Your task to perform on an android device: open wifi settings Image 0: 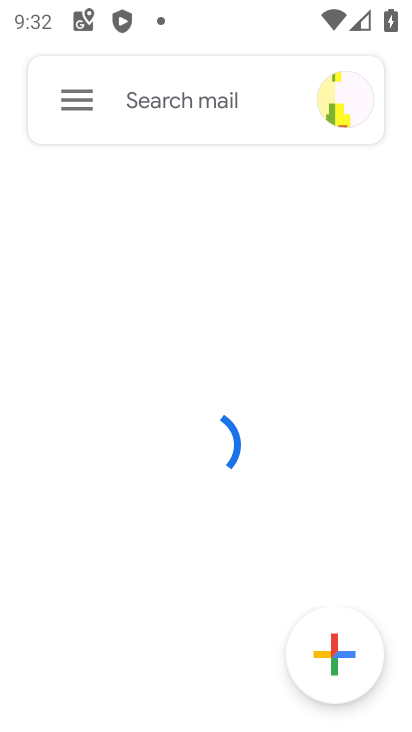
Step 0: press home button
Your task to perform on an android device: open wifi settings Image 1: 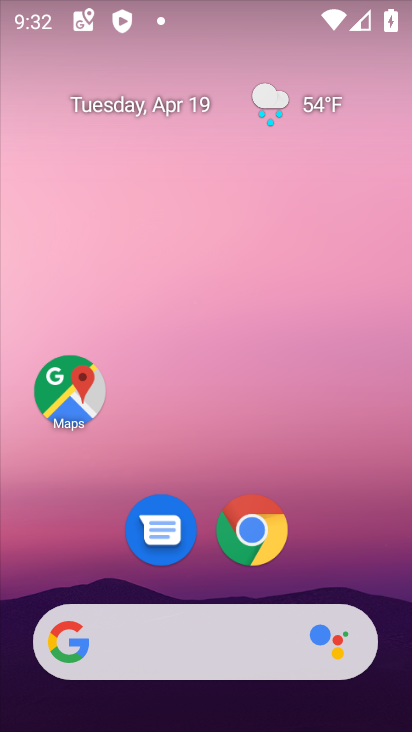
Step 1: drag from (214, 479) to (230, 98)
Your task to perform on an android device: open wifi settings Image 2: 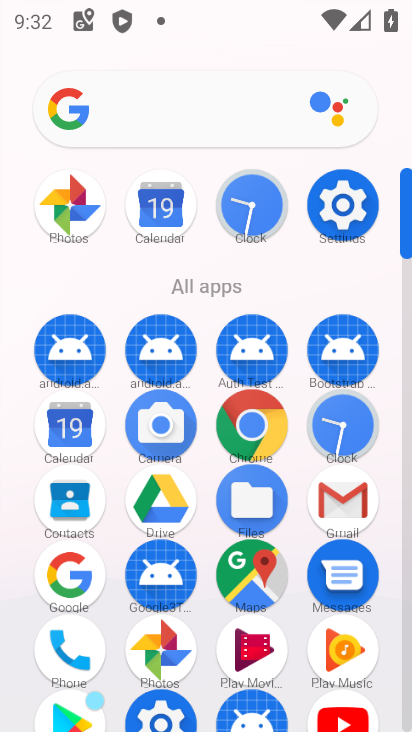
Step 2: click (341, 206)
Your task to perform on an android device: open wifi settings Image 3: 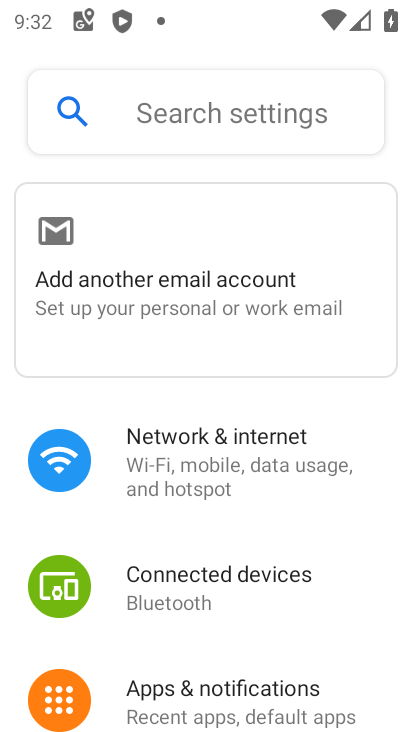
Step 3: click (198, 477)
Your task to perform on an android device: open wifi settings Image 4: 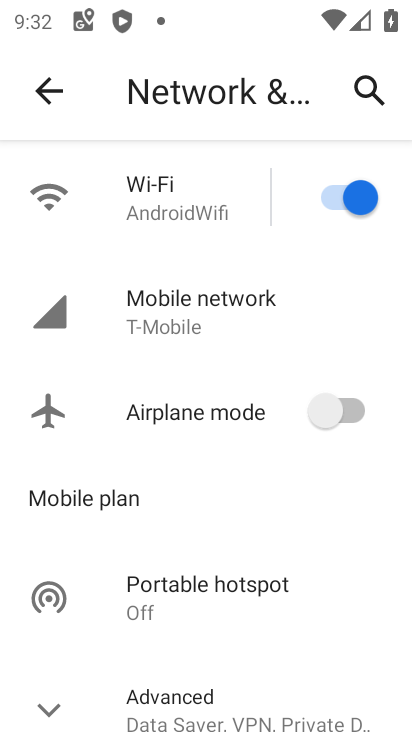
Step 4: click (183, 196)
Your task to perform on an android device: open wifi settings Image 5: 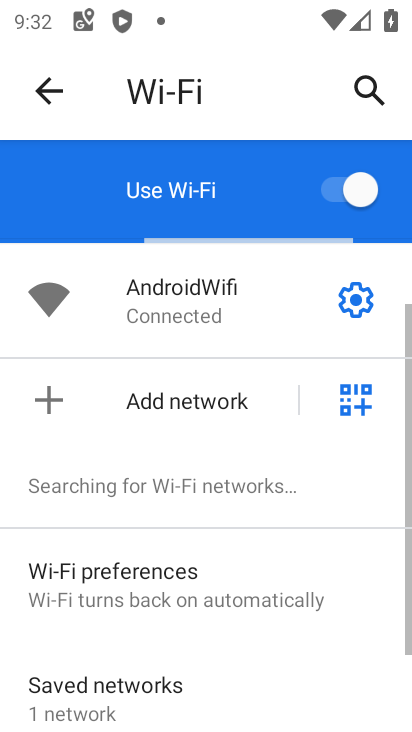
Step 5: click (347, 298)
Your task to perform on an android device: open wifi settings Image 6: 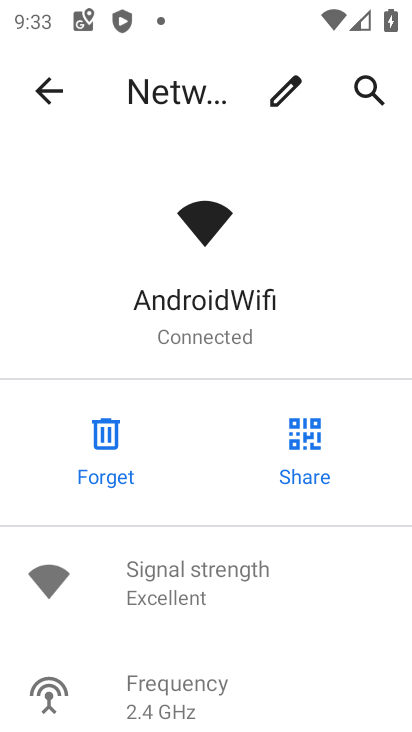
Step 6: task complete